Your task to perform on an android device: Open maps Image 0: 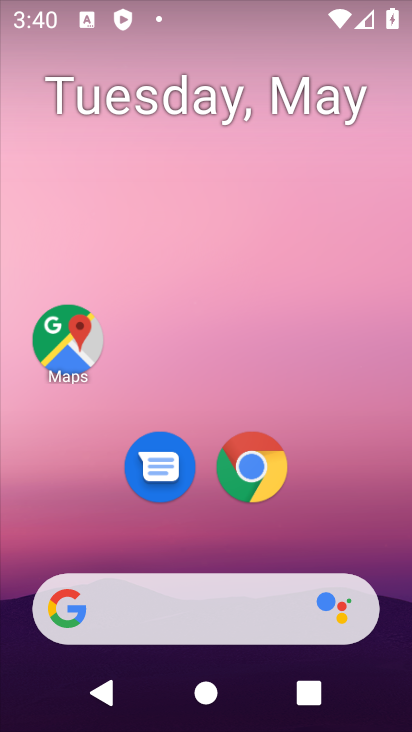
Step 0: drag from (366, 520) to (288, 74)
Your task to perform on an android device: Open maps Image 1: 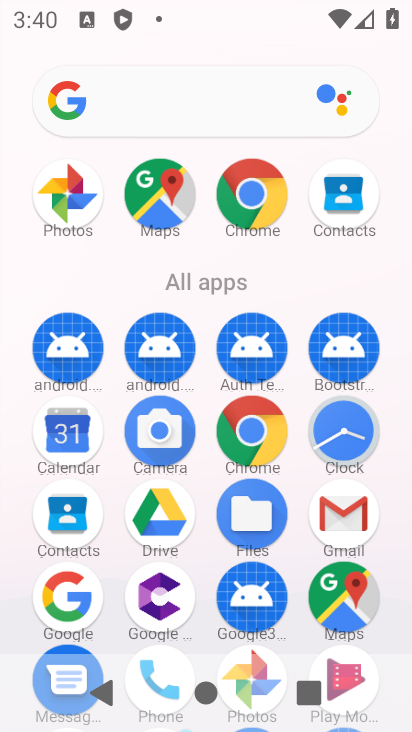
Step 1: click (164, 194)
Your task to perform on an android device: Open maps Image 2: 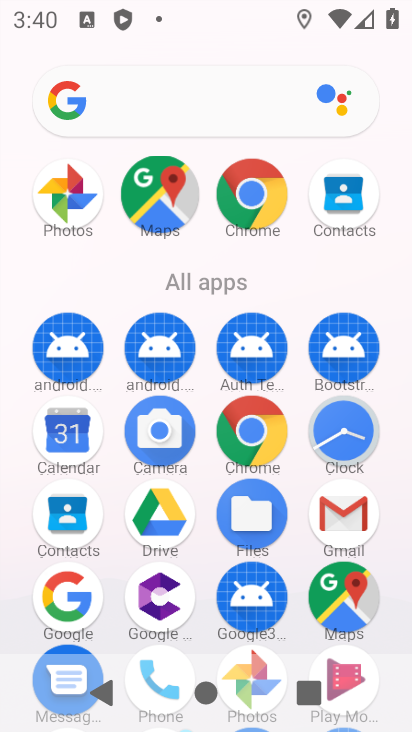
Step 2: task complete